Your task to perform on an android device: delete a single message in the gmail app Image 0: 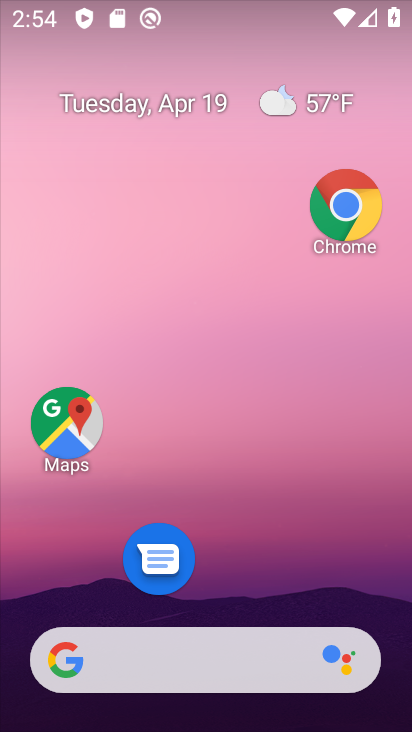
Step 0: drag from (123, 518) to (191, 227)
Your task to perform on an android device: delete a single message in the gmail app Image 1: 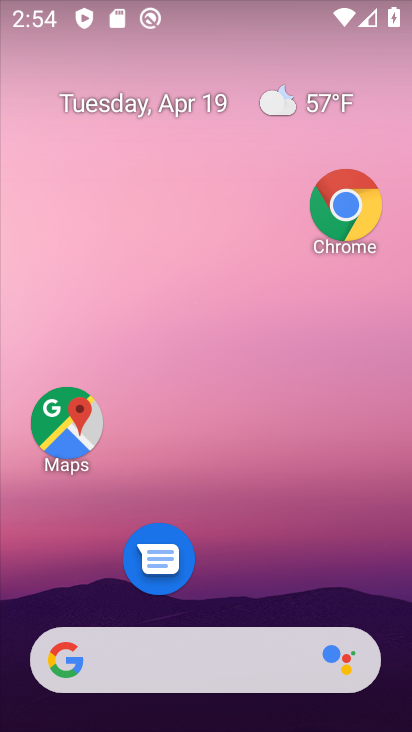
Step 1: drag from (192, 562) to (244, 163)
Your task to perform on an android device: delete a single message in the gmail app Image 2: 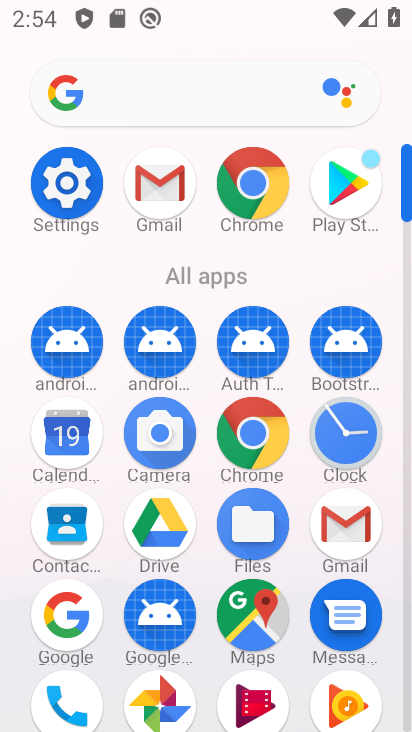
Step 2: click (162, 191)
Your task to perform on an android device: delete a single message in the gmail app Image 3: 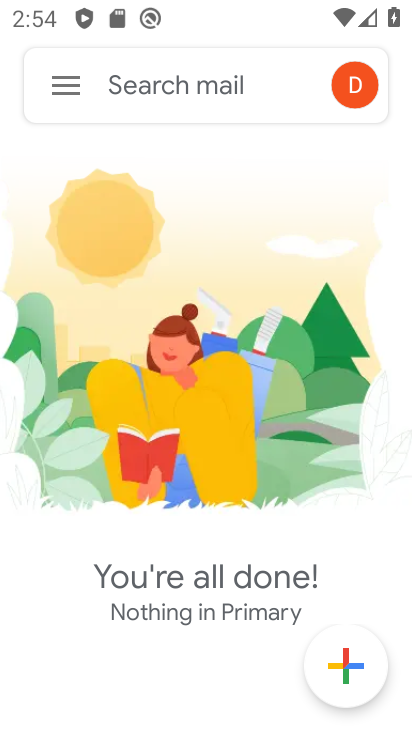
Step 3: click (59, 89)
Your task to perform on an android device: delete a single message in the gmail app Image 4: 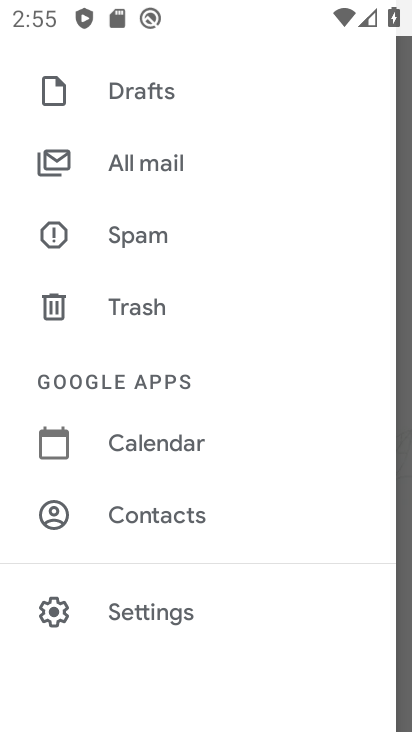
Step 4: click (176, 167)
Your task to perform on an android device: delete a single message in the gmail app Image 5: 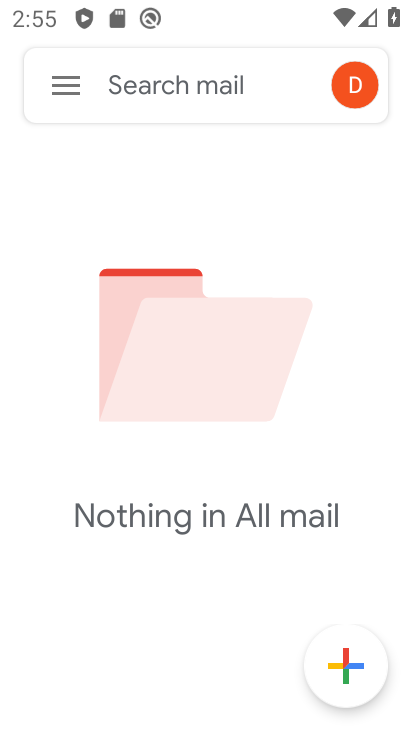
Step 5: task complete